Your task to perform on an android device: change alarm snooze length Image 0: 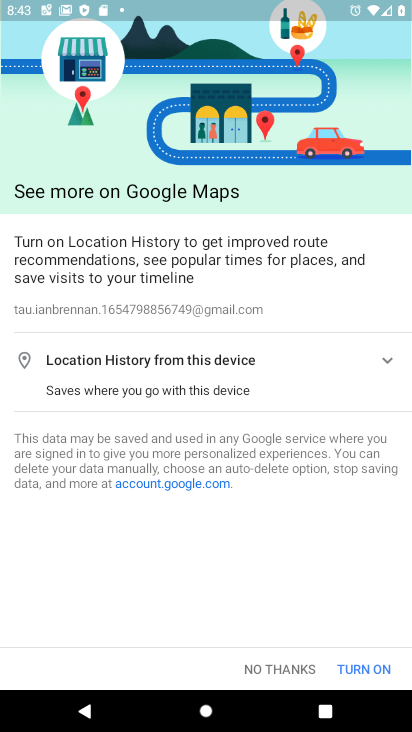
Step 0: press home button
Your task to perform on an android device: change alarm snooze length Image 1: 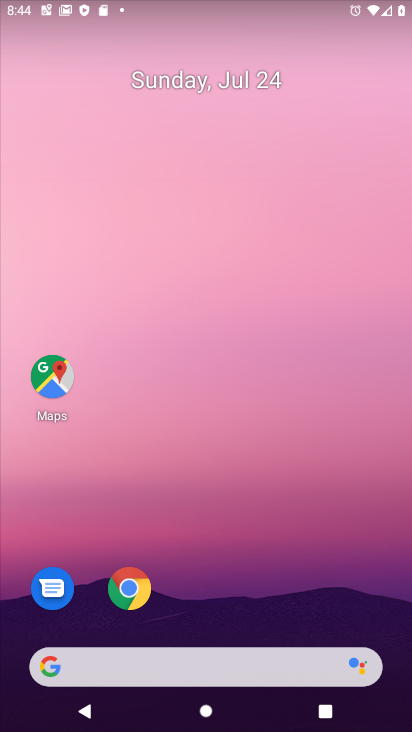
Step 1: drag from (281, 610) to (303, 0)
Your task to perform on an android device: change alarm snooze length Image 2: 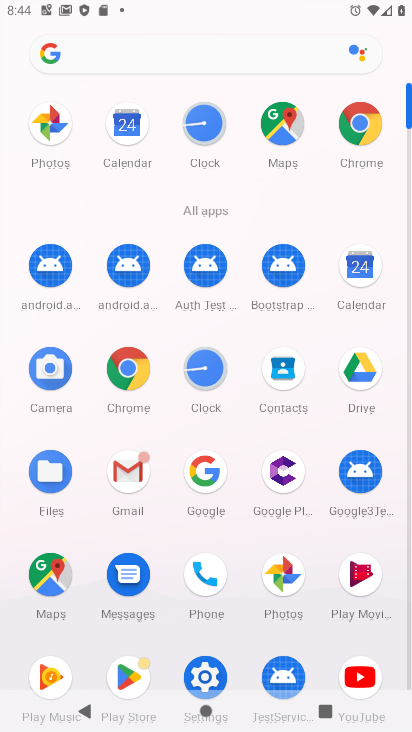
Step 2: click (201, 363)
Your task to perform on an android device: change alarm snooze length Image 3: 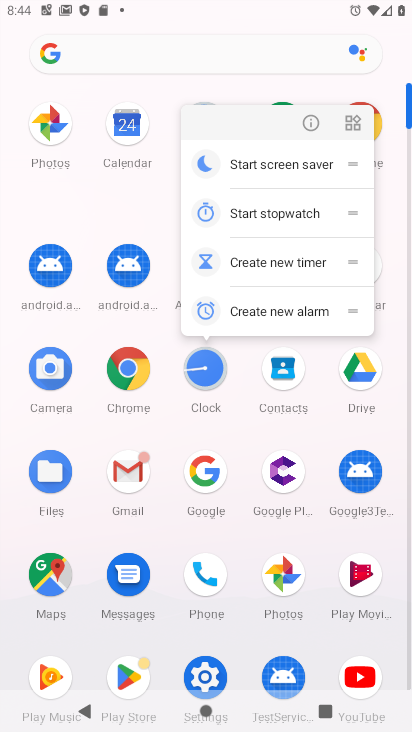
Step 3: click (194, 374)
Your task to perform on an android device: change alarm snooze length Image 4: 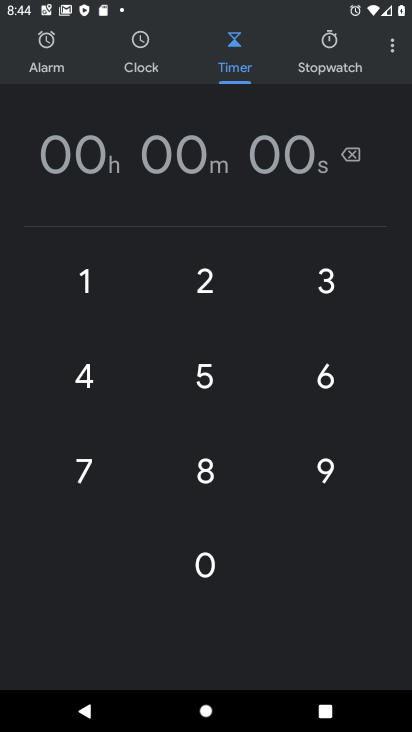
Step 4: click (387, 46)
Your task to perform on an android device: change alarm snooze length Image 5: 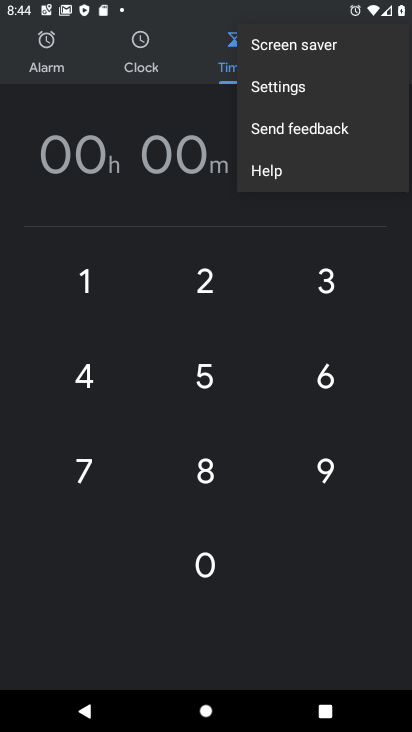
Step 5: click (314, 84)
Your task to perform on an android device: change alarm snooze length Image 6: 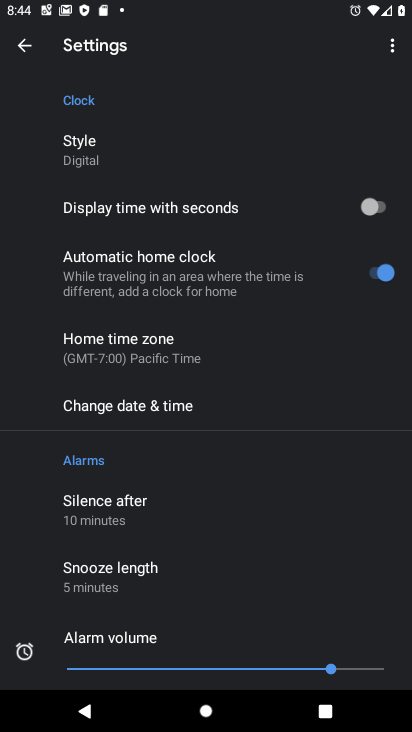
Step 6: click (151, 579)
Your task to perform on an android device: change alarm snooze length Image 7: 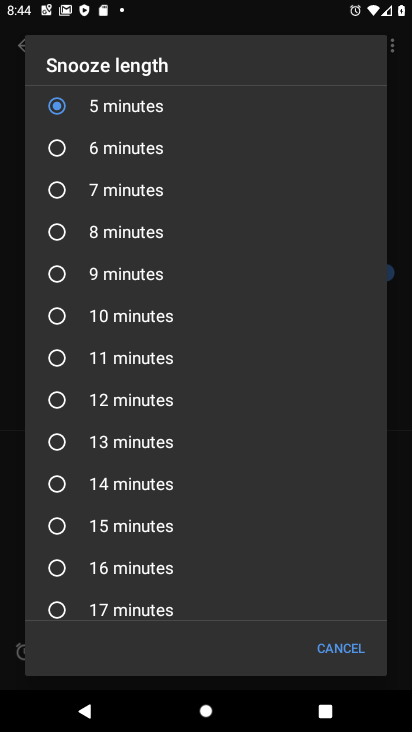
Step 7: drag from (104, 178) to (116, 645)
Your task to perform on an android device: change alarm snooze length Image 8: 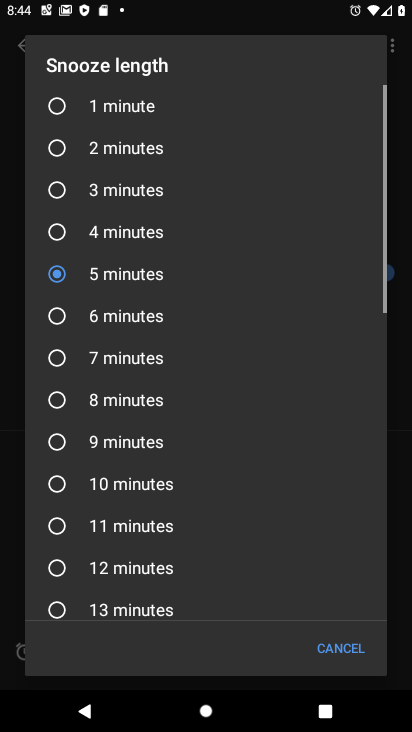
Step 8: click (66, 188)
Your task to perform on an android device: change alarm snooze length Image 9: 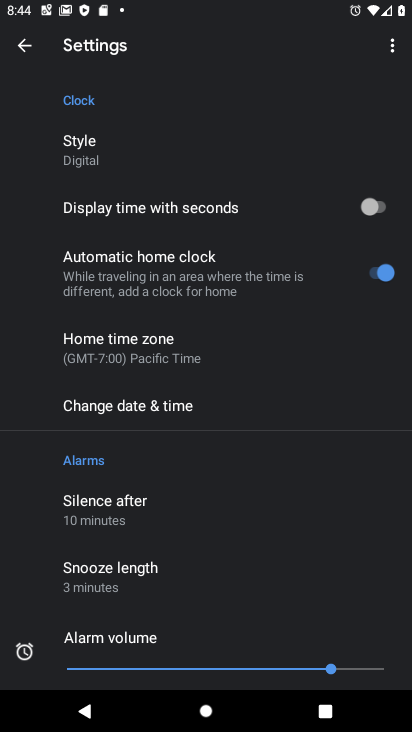
Step 9: task complete